Your task to perform on an android device: check data usage Image 0: 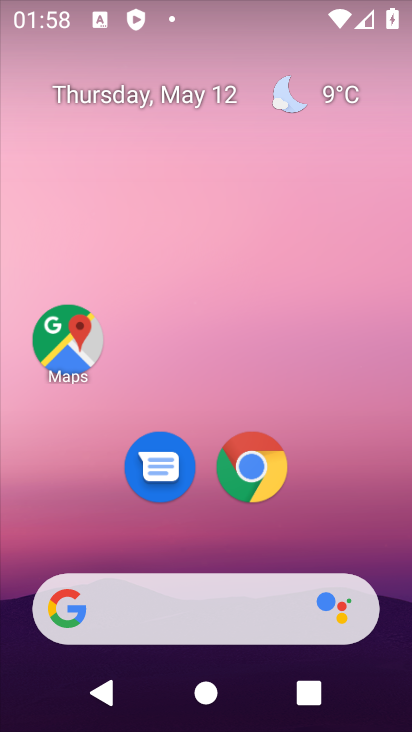
Step 0: drag from (302, 527) to (315, 189)
Your task to perform on an android device: check data usage Image 1: 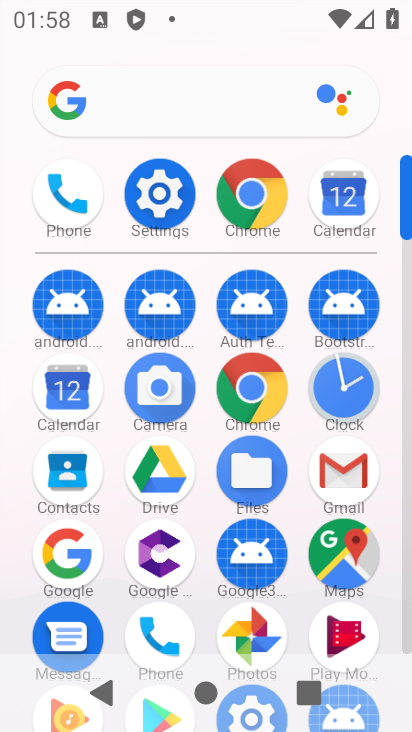
Step 1: click (140, 190)
Your task to perform on an android device: check data usage Image 2: 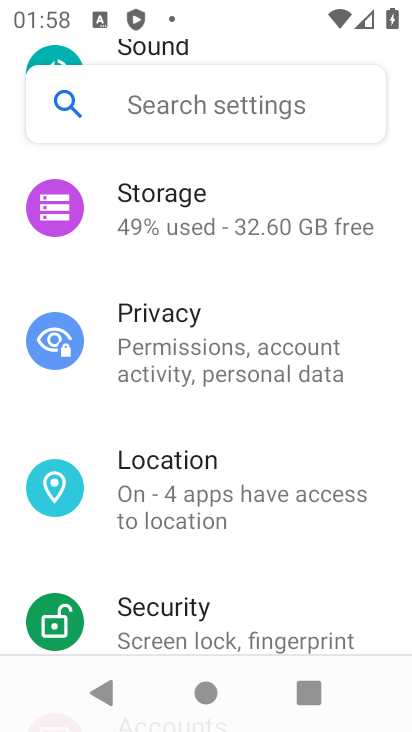
Step 2: drag from (196, 179) to (211, 481)
Your task to perform on an android device: check data usage Image 3: 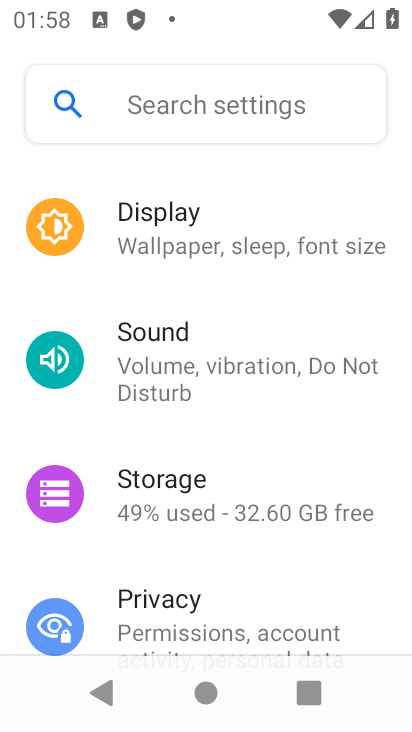
Step 3: drag from (229, 263) to (216, 620)
Your task to perform on an android device: check data usage Image 4: 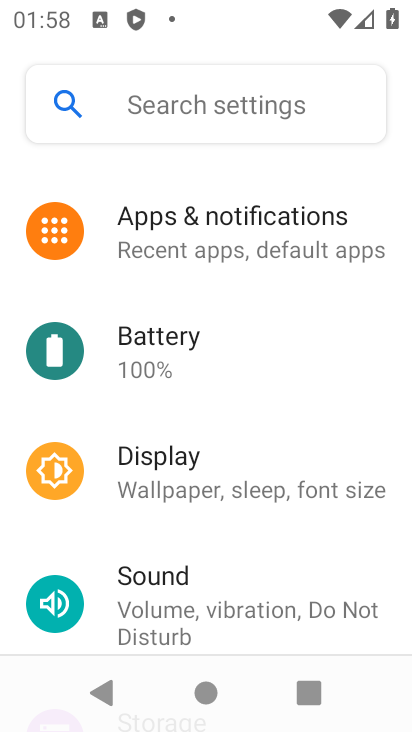
Step 4: drag from (214, 278) to (216, 375)
Your task to perform on an android device: check data usage Image 5: 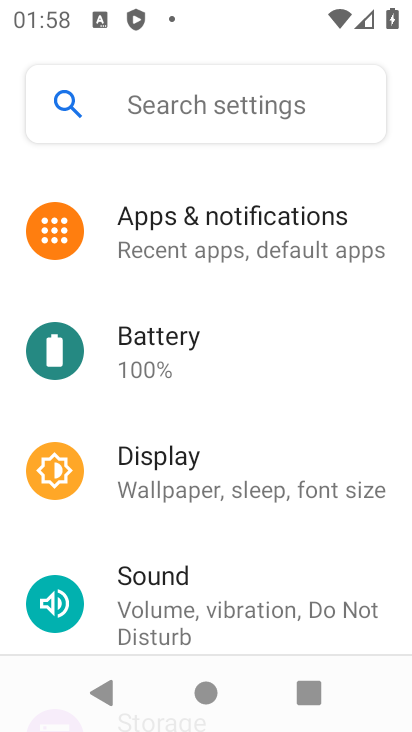
Step 5: drag from (216, 379) to (233, 534)
Your task to perform on an android device: check data usage Image 6: 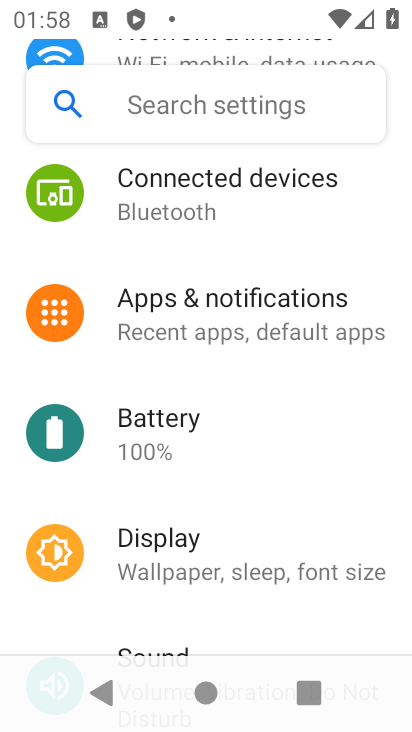
Step 6: drag from (258, 260) to (282, 601)
Your task to perform on an android device: check data usage Image 7: 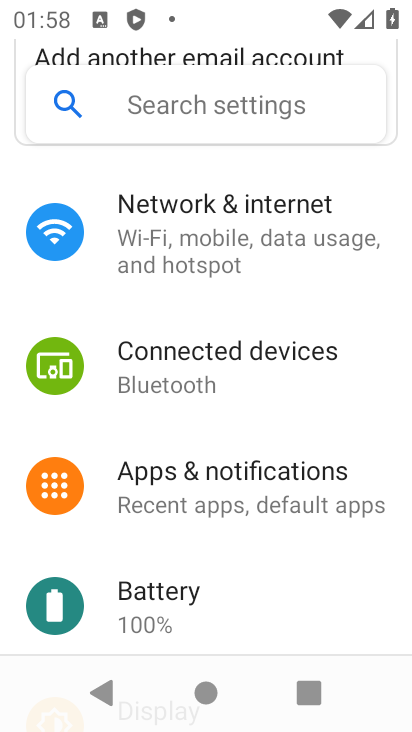
Step 7: click (218, 234)
Your task to perform on an android device: check data usage Image 8: 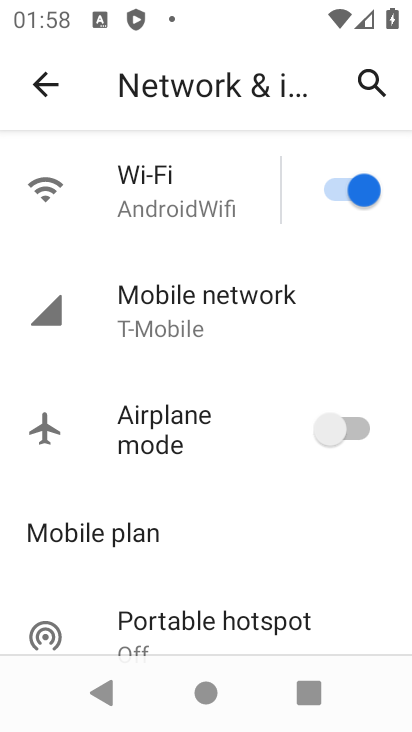
Step 8: click (179, 284)
Your task to perform on an android device: check data usage Image 9: 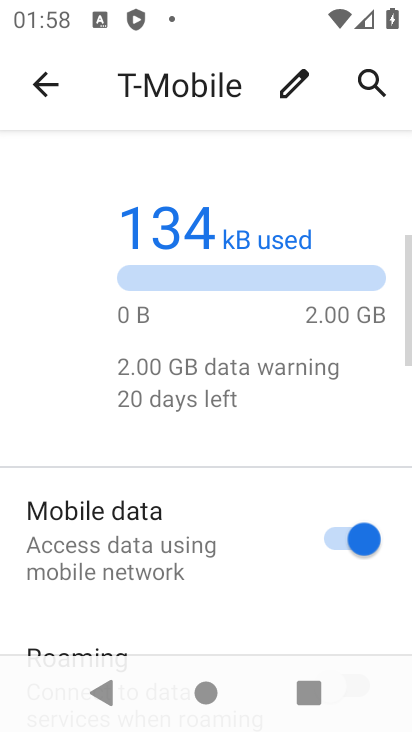
Step 9: drag from (217, 500) to (261, 306)
Your task to perform on an android device: check data usage Image 10: 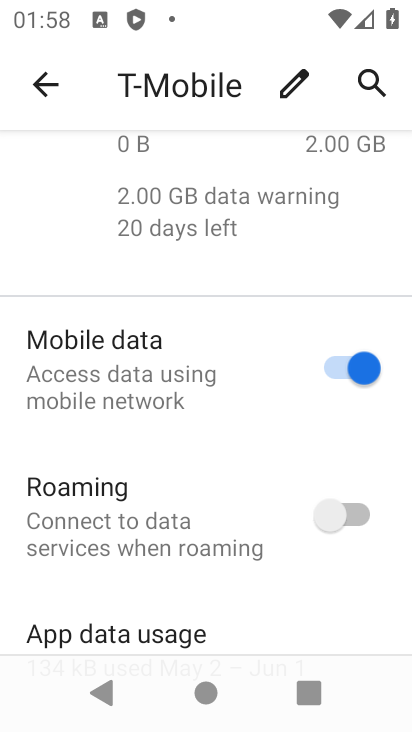
Step 10: drag from (201, 543) to (285, 232)
Your task to perform on an android device: check data usage Image 11: 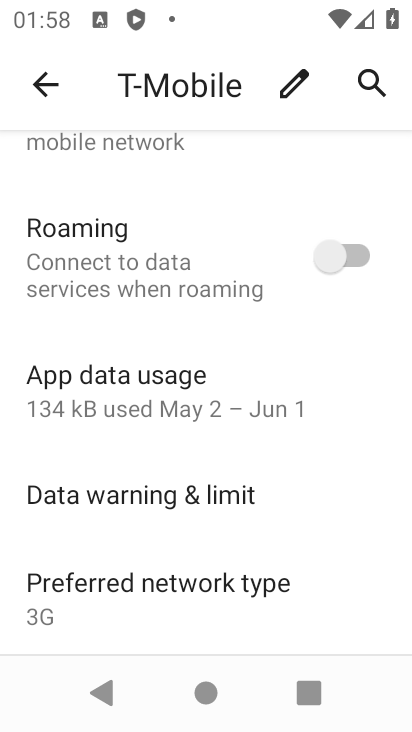
Step 11: click (181, 406)
Your task to perform on an android device: check data usage Image 12: 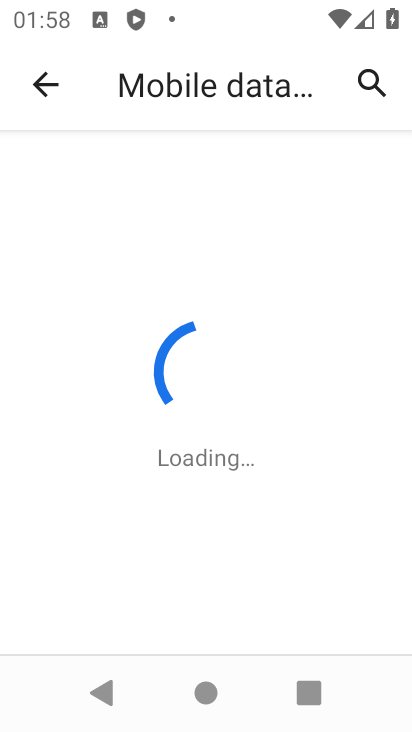
Step 12: task complete